Your task to perform on an android device: open sync settings in chrome Image 0: 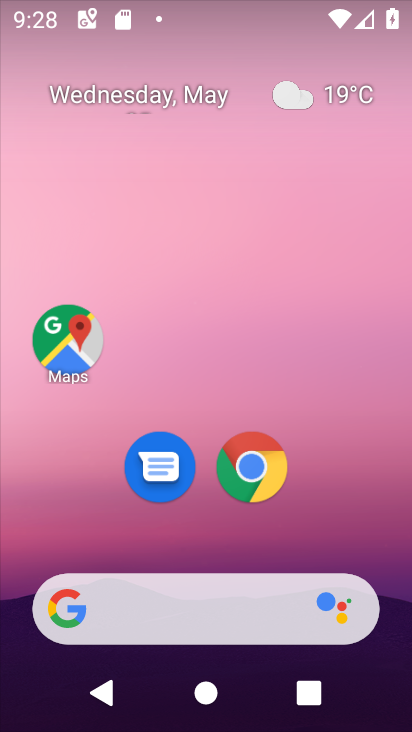
Step 0: click (250, 464)
Your task to perform on an android device: open sync settings in chrome Image 1: 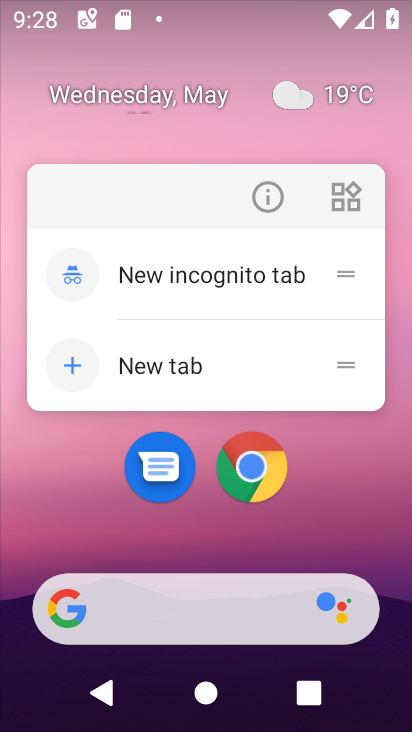
Step 1: click (286, 522)
Your task to perform on an android device: open sync settings in chrome Image 2: 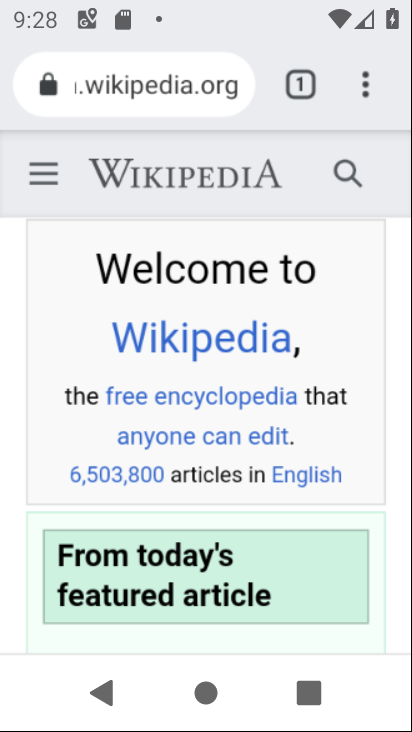
Step 2: drag from (313, 546) to (281, 305)
Your task to perform on an android device: open sync settings in chrome Image 3: 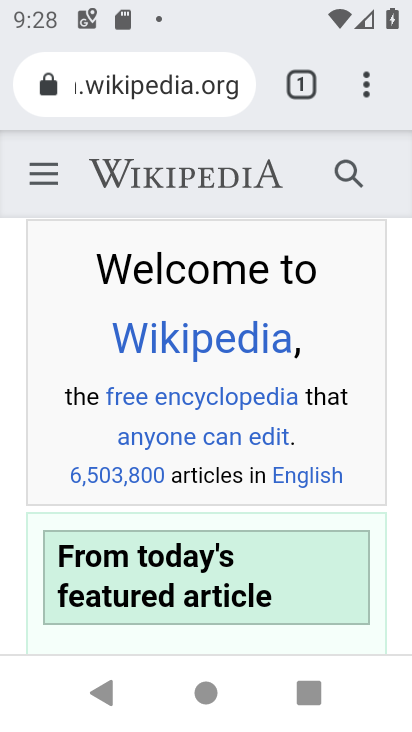
Step 3: click (366, 81)
Your task to perform on an android device: open sync settings in chrome Image 4: 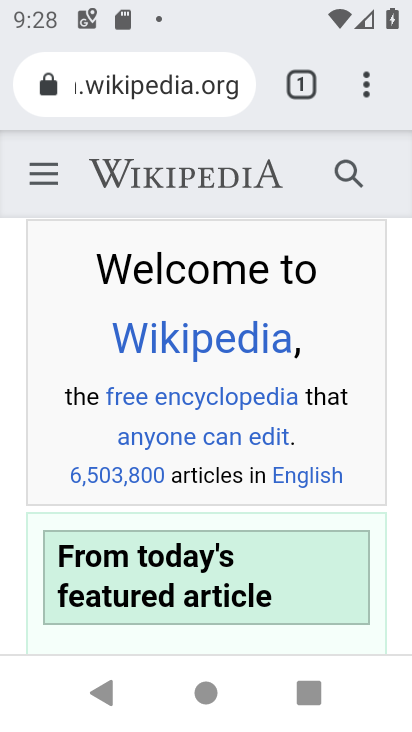
Step 4: drag from (363, 82) to (171, 513)
Your task to perform on an android device: open sync settings in chrome Image 5: 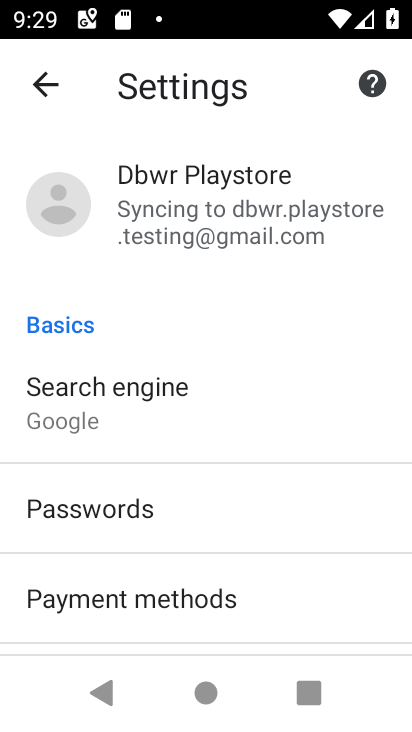
Step 5: click (210, 200)
Your task to perform on an android device: open sync settings in chrome Image 6: 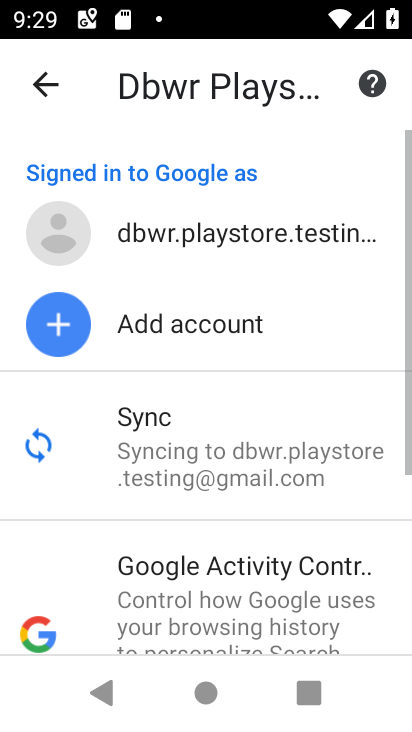
Step 6: click (185, 417)
Your task to perform on an android device: open sync settings in chrome Image 7: 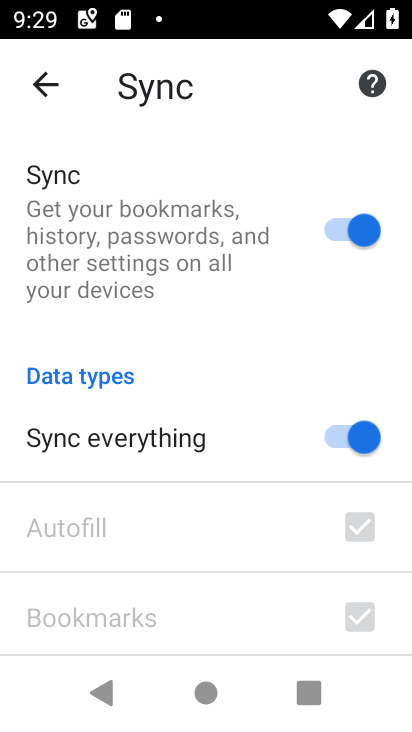
Step 7: task complete